Your task to perform on an android device: Open privacy settings Image 0: 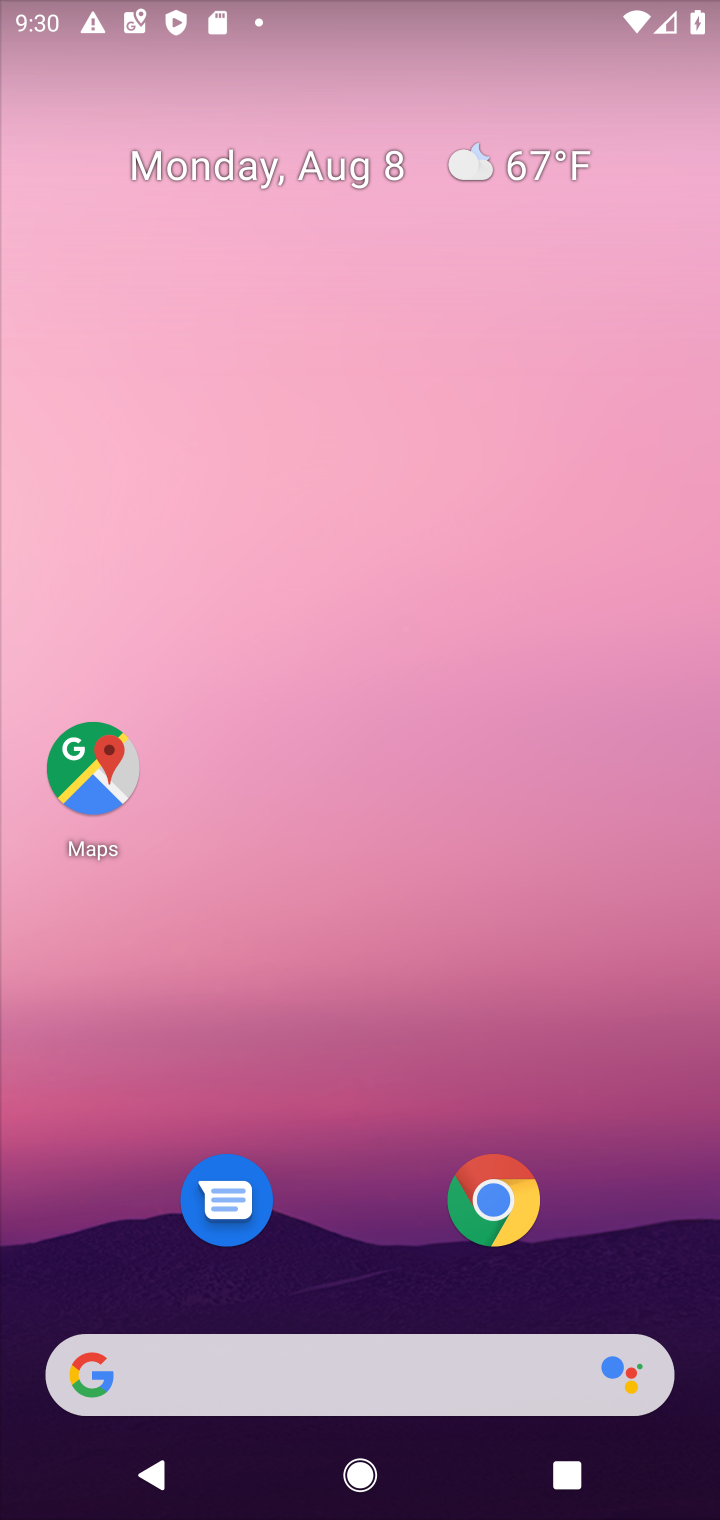
Step 0: press home button
Your task to perform on an android device: Open privacy settings Image 1: 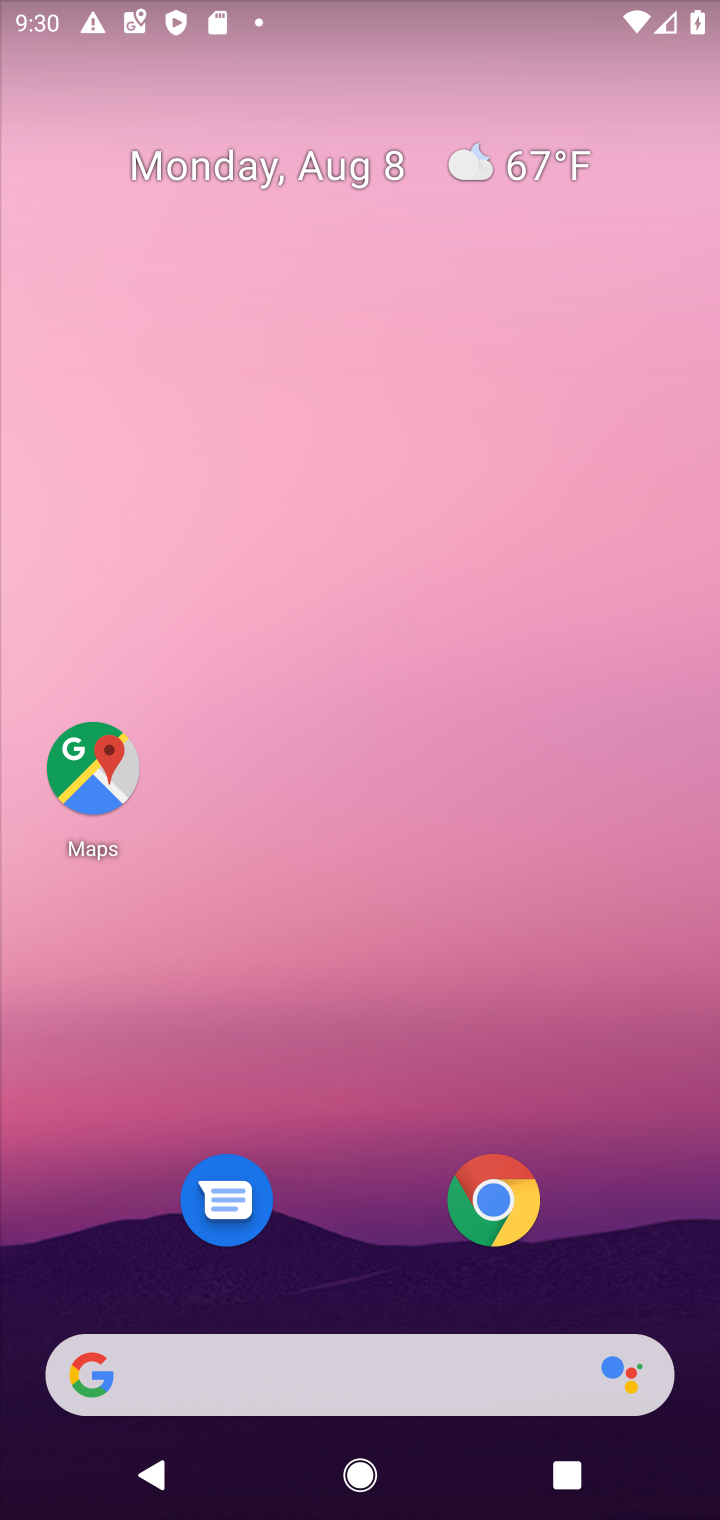
Step 1: drag from (338, 1380) to (579, 87)
Your task to perform on an android device: Open privacy settings Image 2: 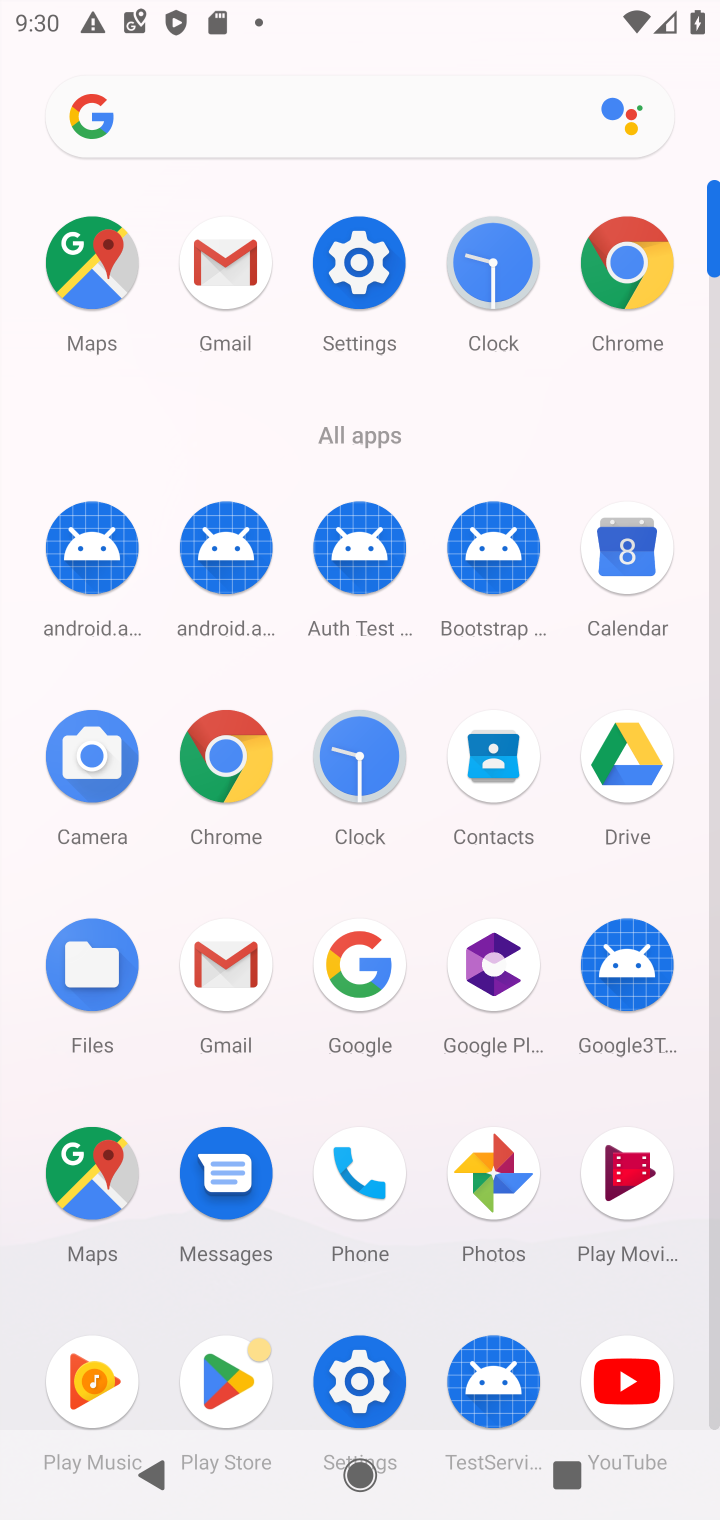
Step 2: click (366, 277)
Your task to perform on an android device: Open privacy settings Image 3: 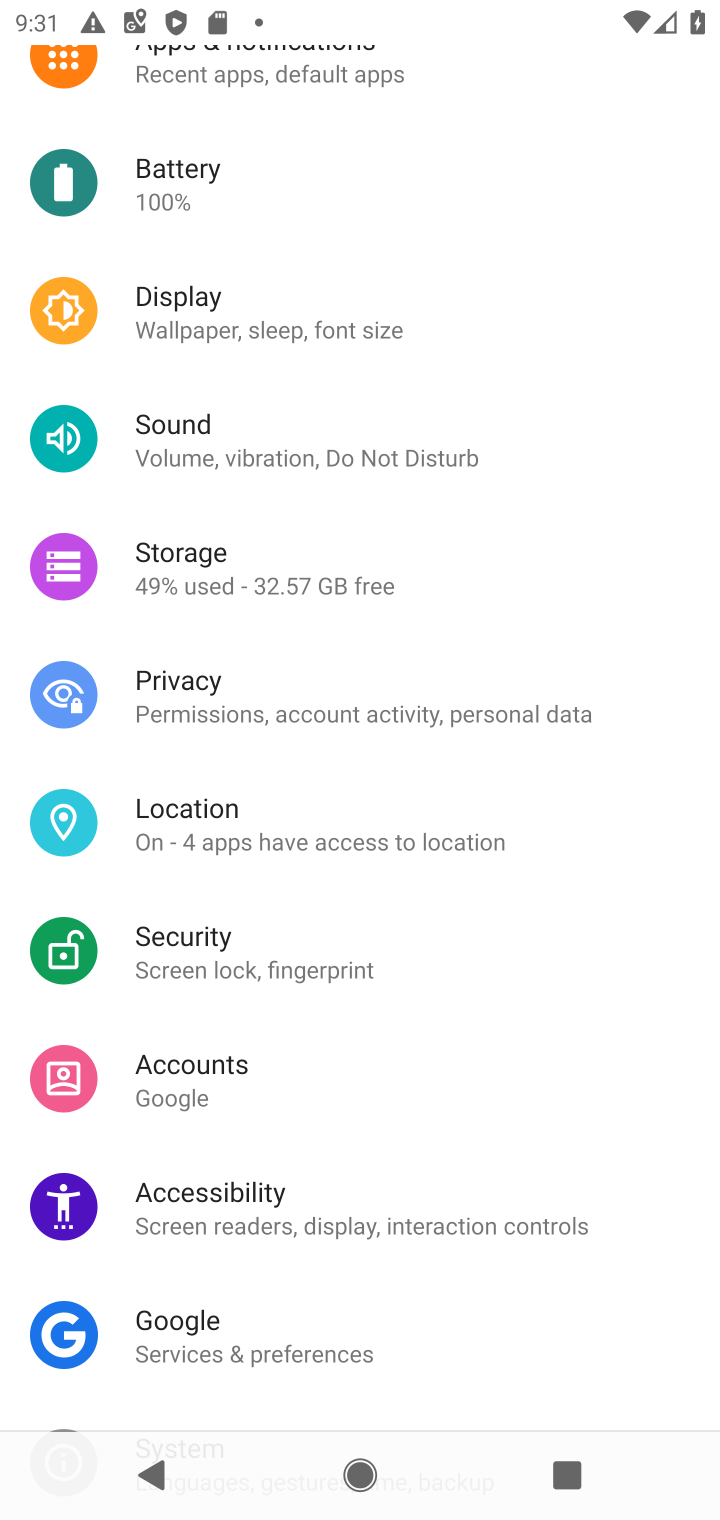
Step 3: click (209, 669)
Your task to perform on an android device: Open privacy settings Image 4: 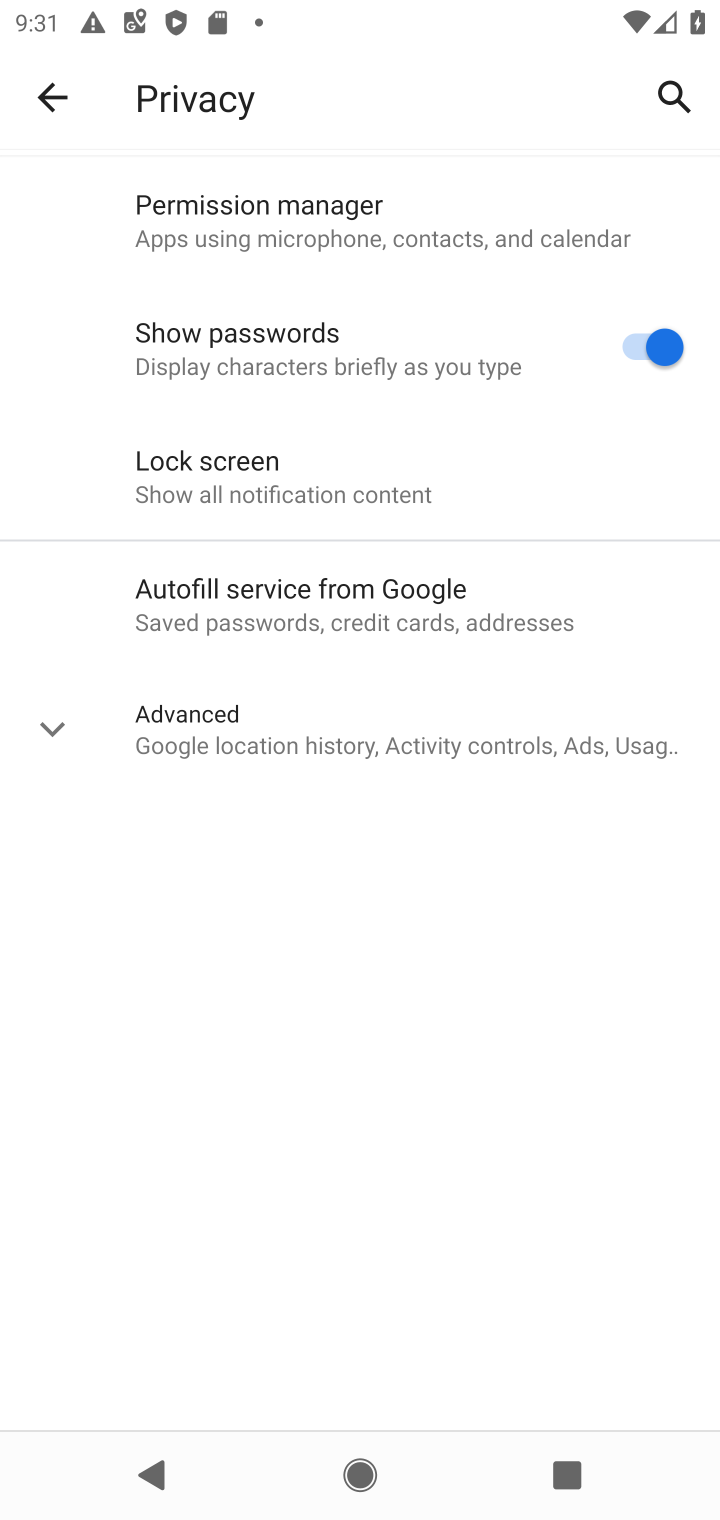
Step 4: task complete